Your task to perform on an android device: Go to Google maps Image 0: 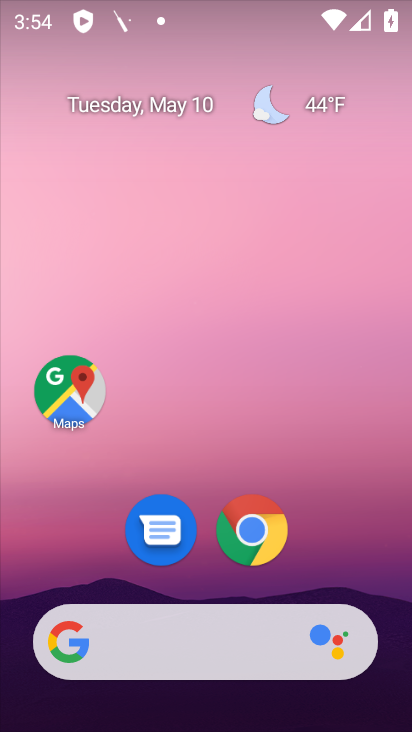
Step 0: click (62, 384)
Your task to perform on an android device: Go to Google maps Image 1: 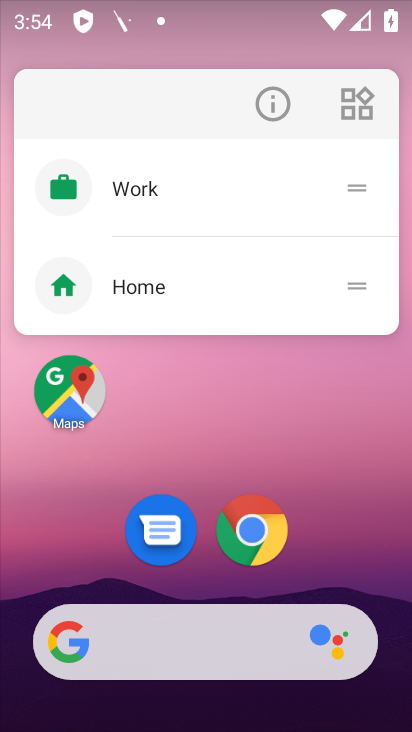
Step 1: click (71, 402)
Your task to perform on an android device: Go to Google maps Image 2: 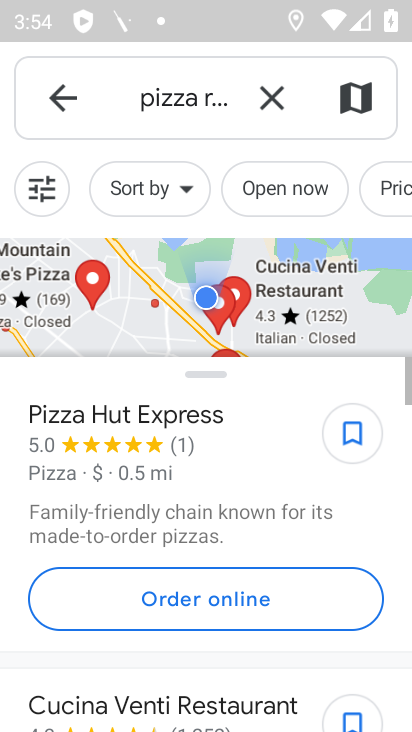
Step 2: task complete